Your task to perform on an android device: turn off location history Image 0: 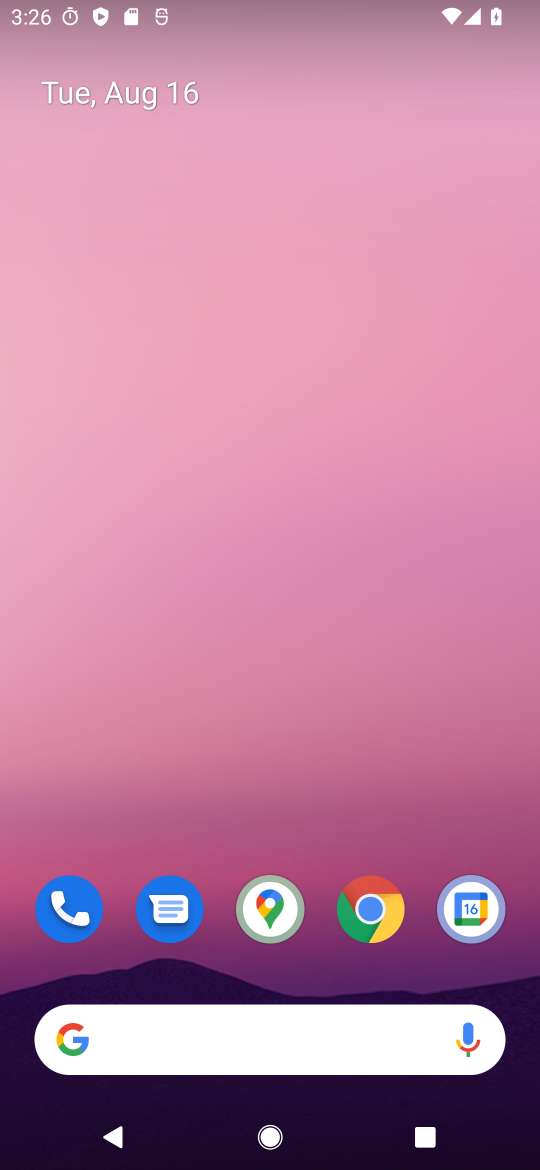
Step 0: drag from (255, 63) to (270, 118)
Your task to perform on an android device: turn off location history Image 1: 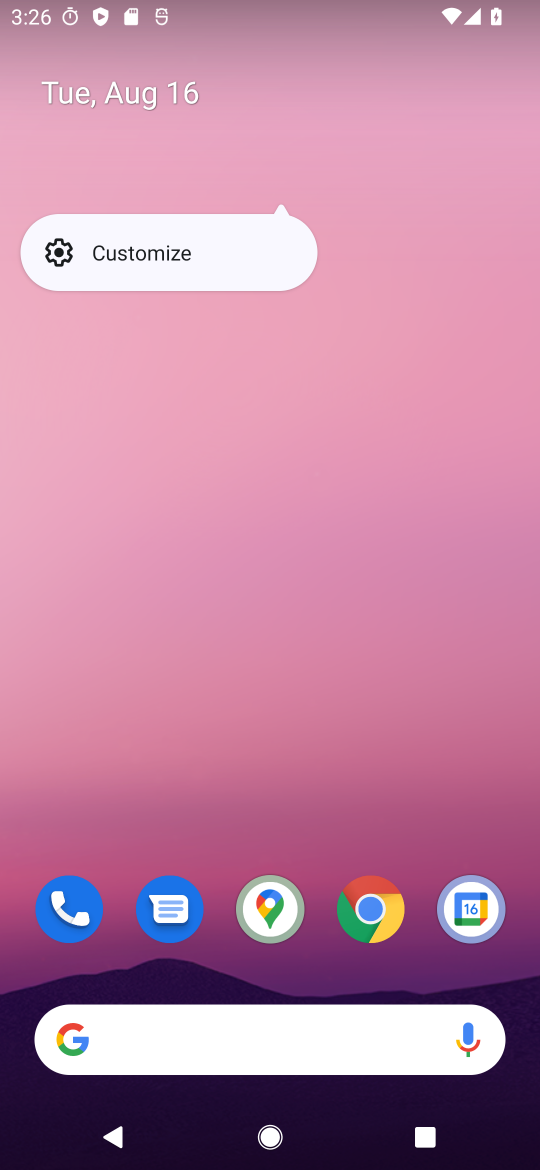
Step 1: drag from (231, 933) to (271, 327)
Your task to perform on an android device: turn off location history Image 2: 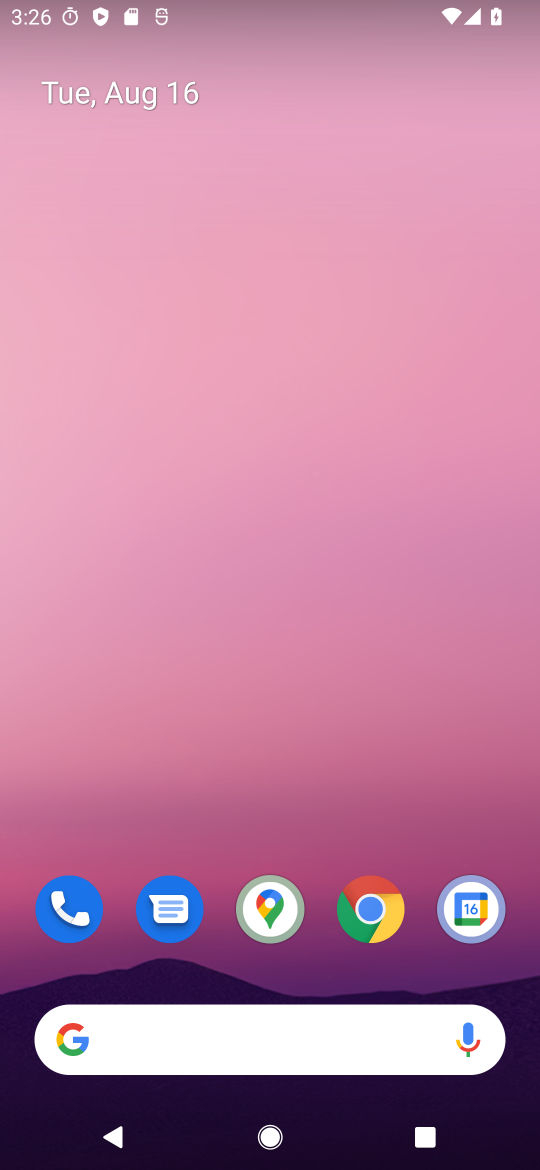
Step 2: drag from (215, 866) to (241, 185)
Your task to perform on an android device: turn off location history Image 3: 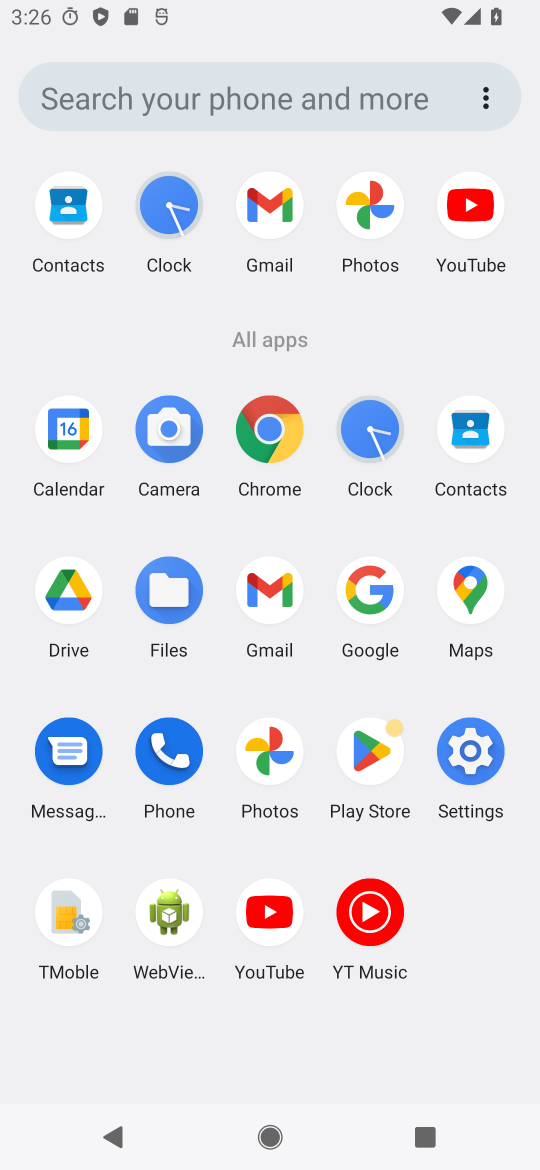
Step 3: click (475, 742)
Your task to perform on an android device: turn off location history Image 4: 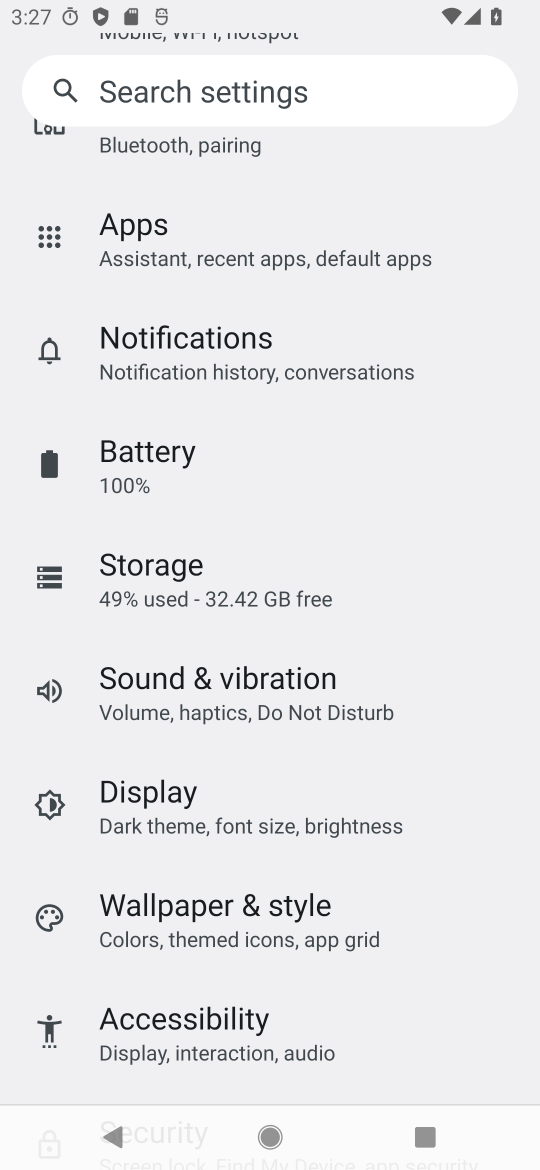
Step 4: drag from (310, 463) to (218, 1167)
Your task to perform on an android device: turn off location history Image 5: 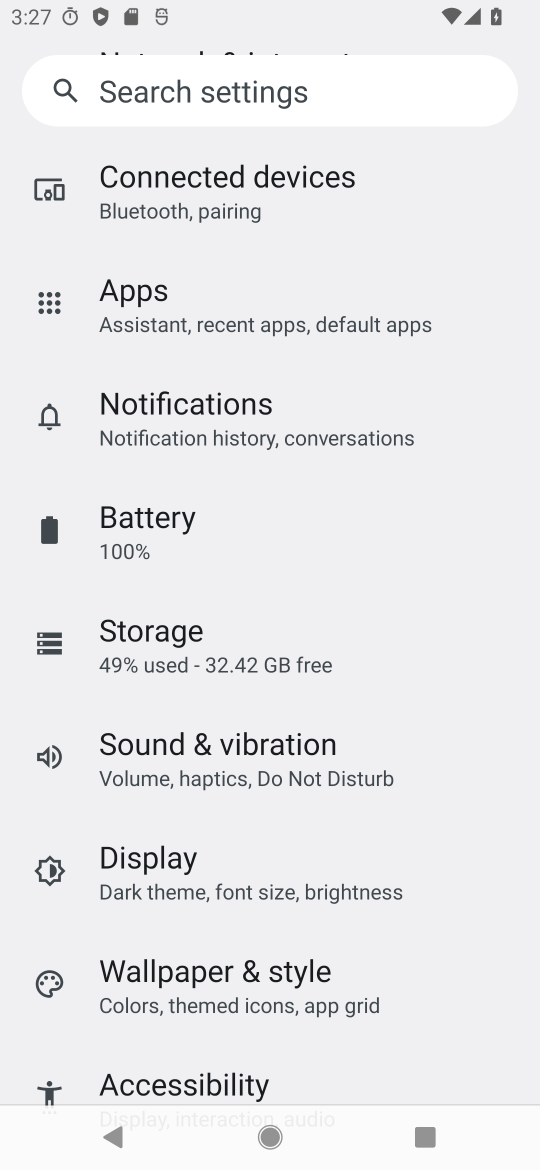
Step 5: drag from (253, 571) to (263, 1164)
Your task to perform on an android device: turn off location history Image 6: 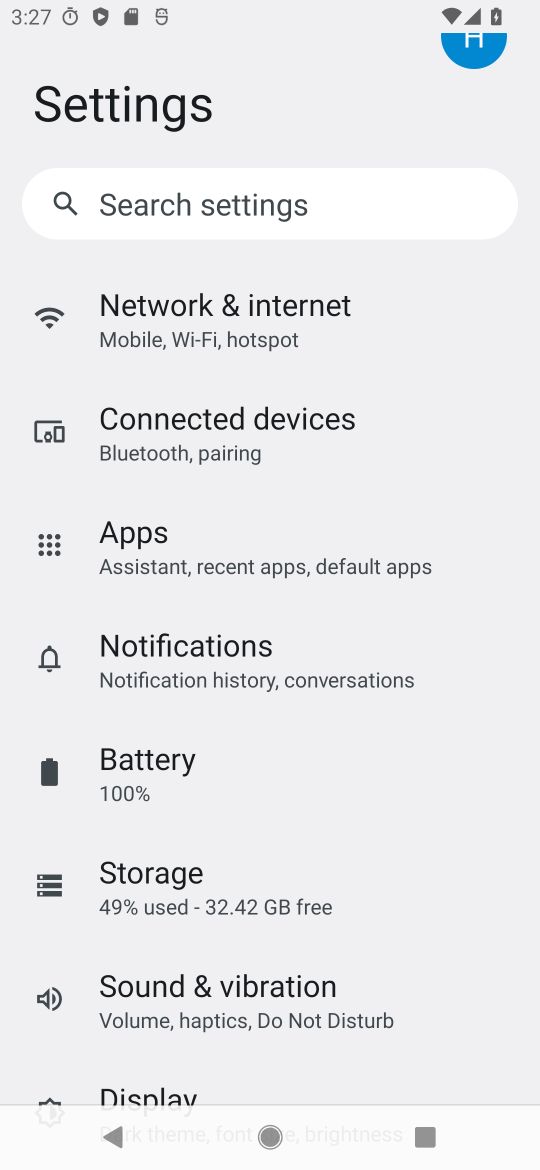
Step 6: drag from (251, 855) to (263, 325)
Your task to perform on an android device: turn off location history Image 7: 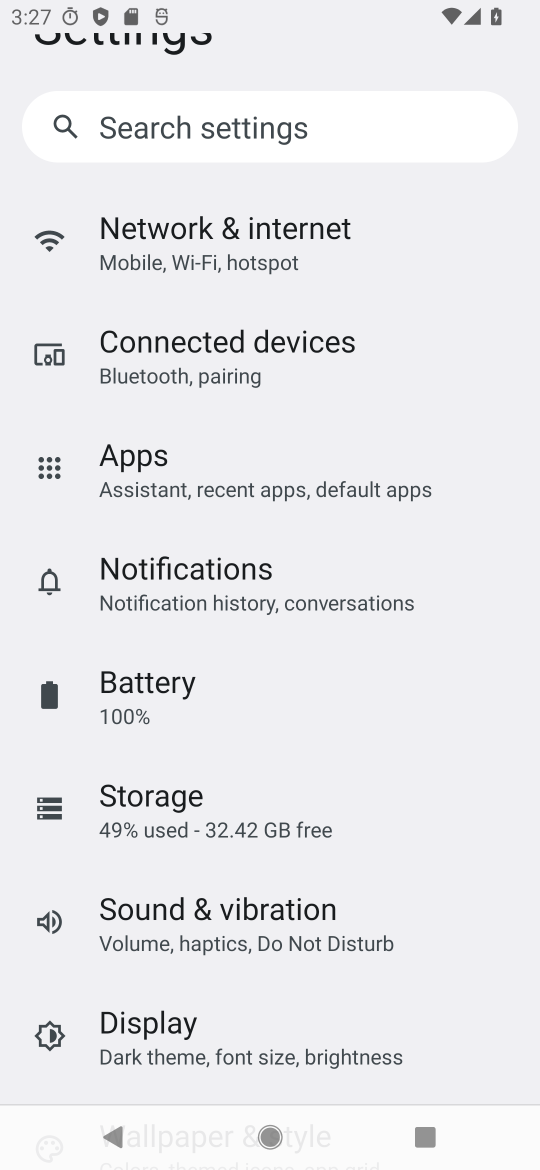
Step 7: drag from (258, 936) to (258, 228)
Your task to perform on an android device: turn off location history Image 8: 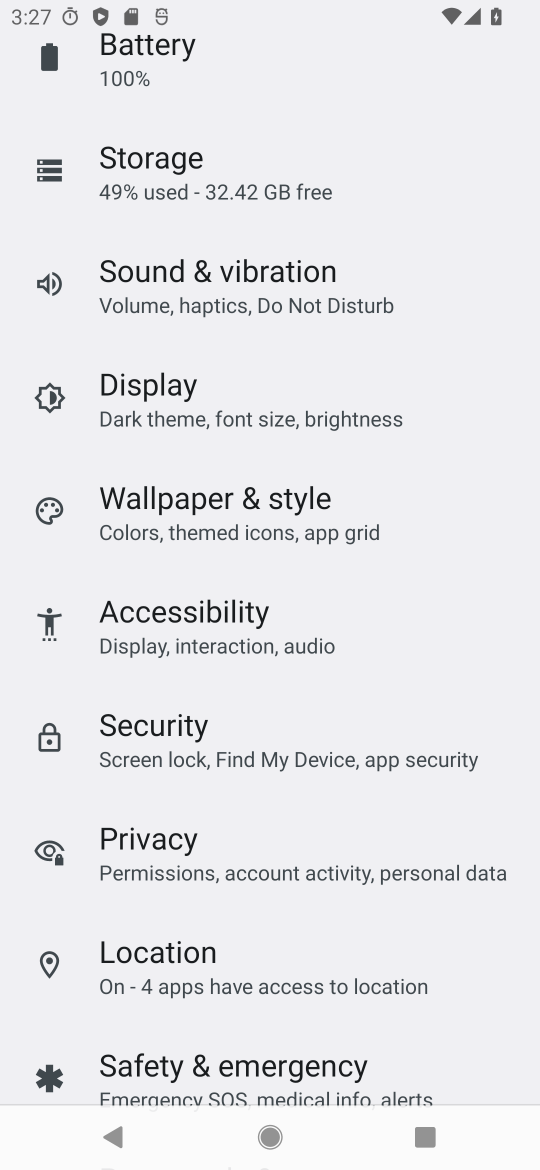
Step 8: click (174, 965)
Your task to perform on an android device: turn off location history Image 9: 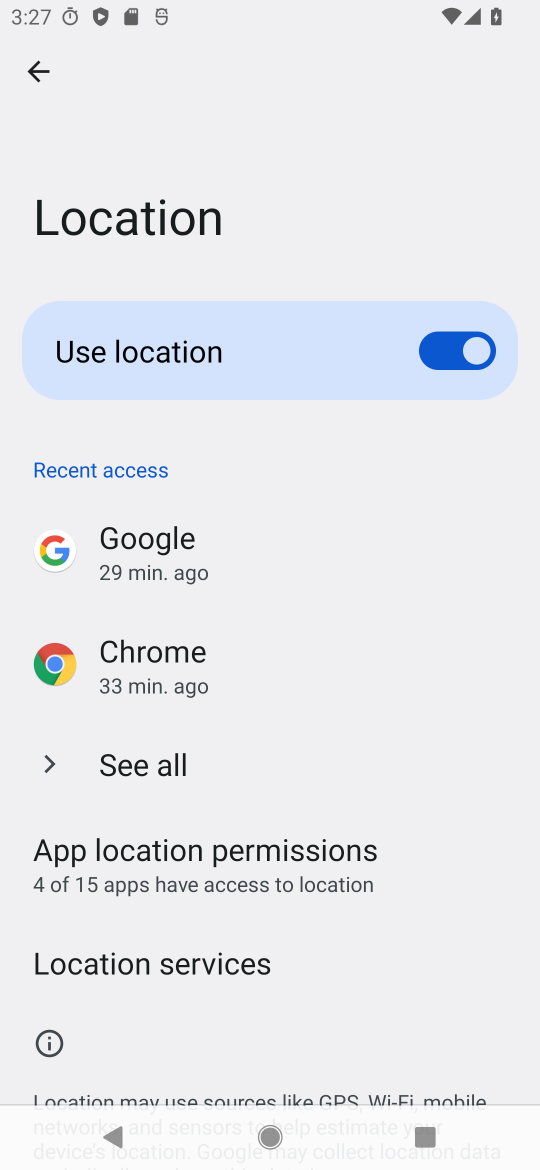
Step 9: drag from (242, 981) to (276, 392)
Your task to perform on an android device: turn off location history Image 10: 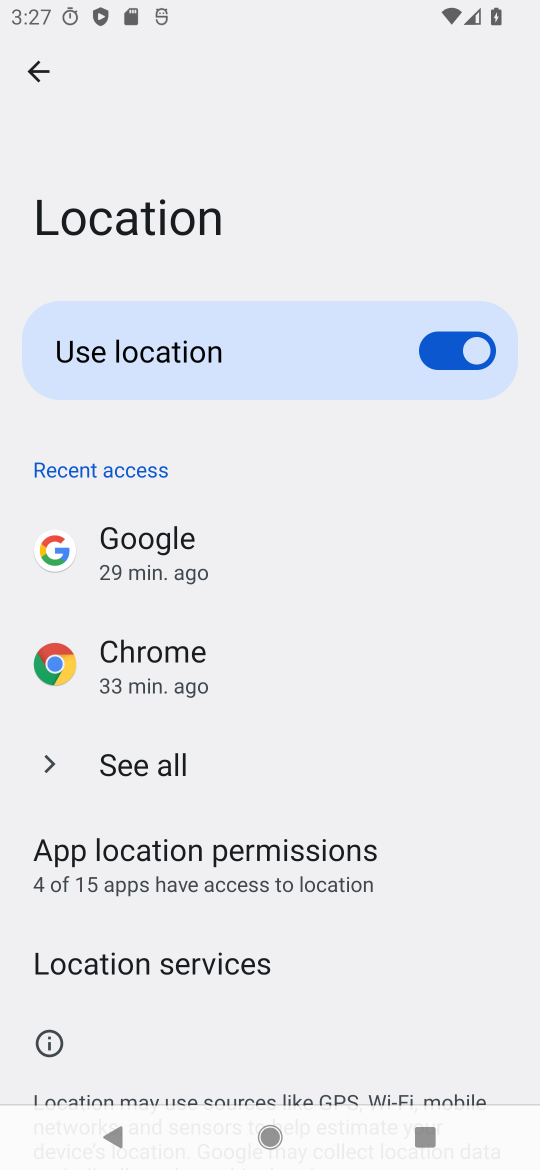
Step 10: drag from (201, 990) to (235, 296)
Your task to perform on an android device: turn off location history Image 11: 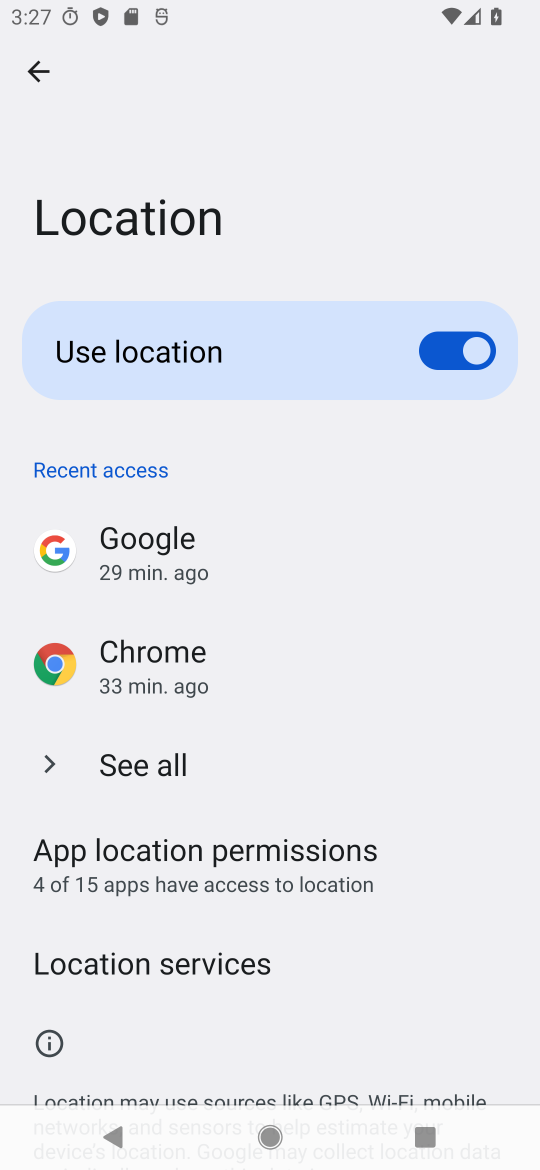
Step 11: drag from (286, 657) to (253, 182)
Your task to perform on an android device: turn off location history Image 12: 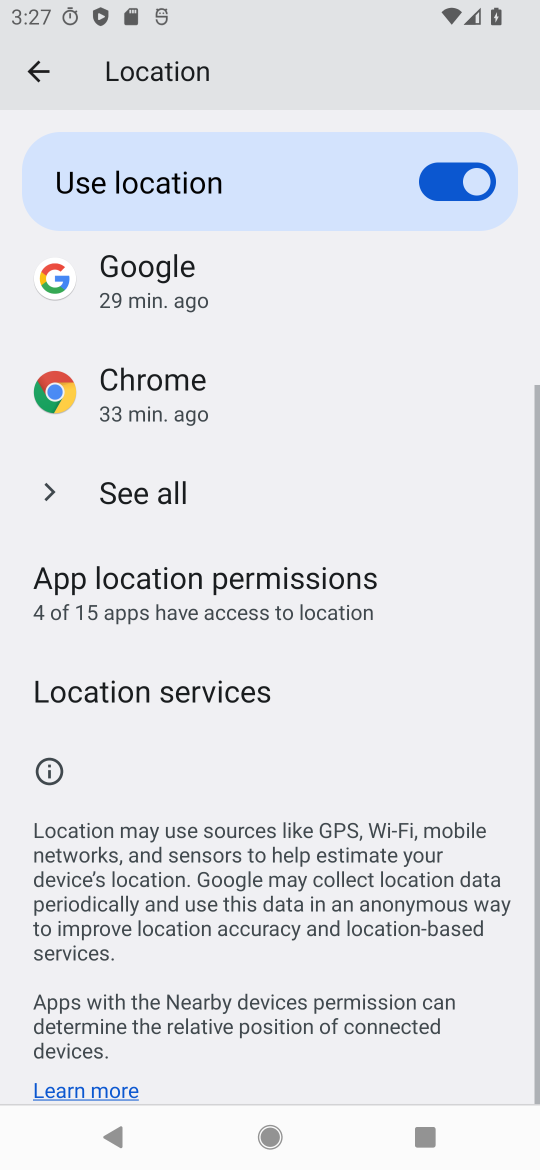
Step 12: click (162, 675)
Your task to perform on an android device: turn off location history Image 13: 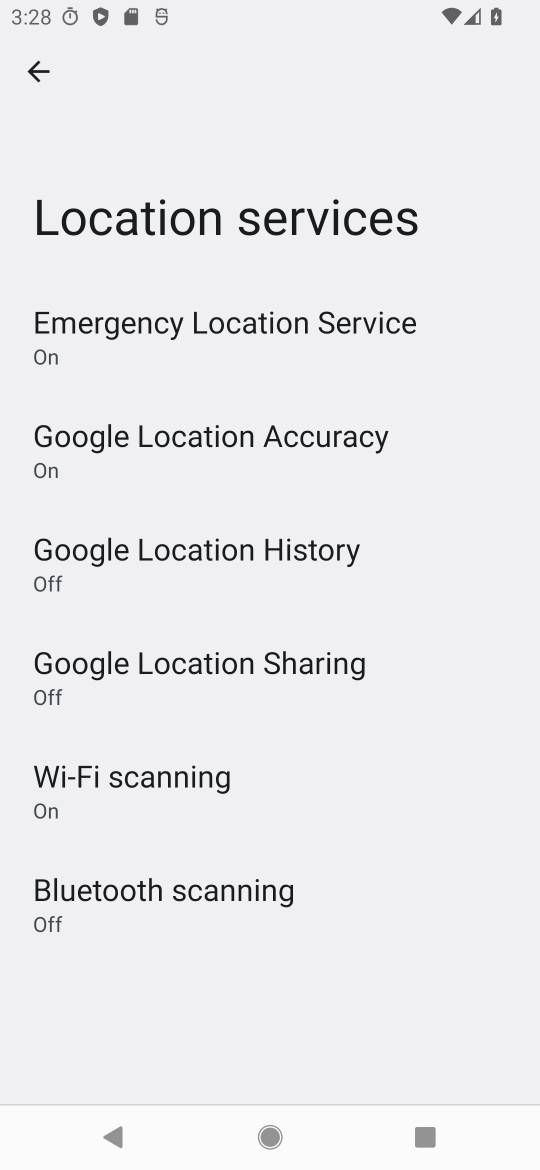
Step 13: task complete